Your task to perform on an android device: Open my contact list Image 0: 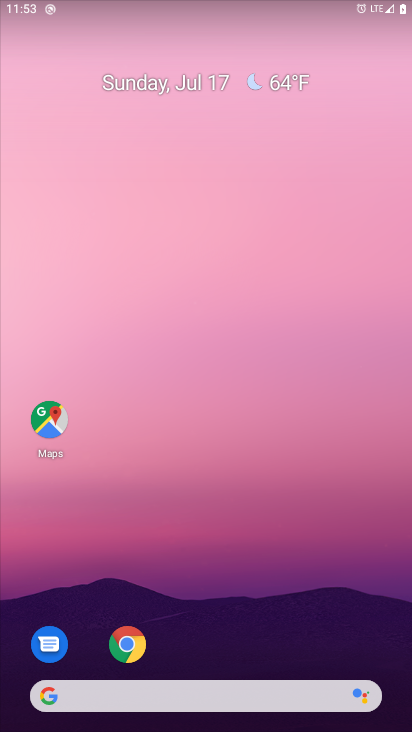
Step 0: press home button
Your task to perform on an android device: Open my contact list Image 1: 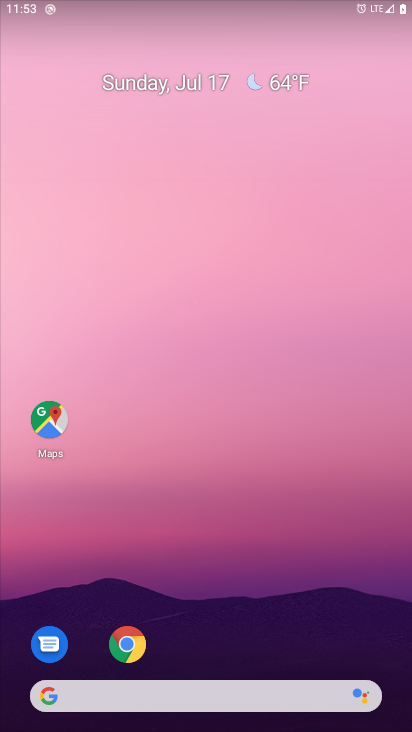
Step 1: drag from (326, 617) to (357, 144)
Your task to perform on an android device: Open my contact list Image 2: 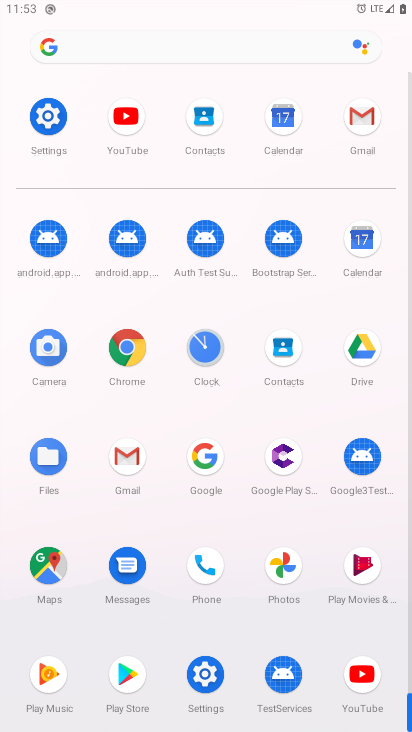
Step 2: click (284, 350)
Your task to perform on an android device: Open my contact list Image 3: 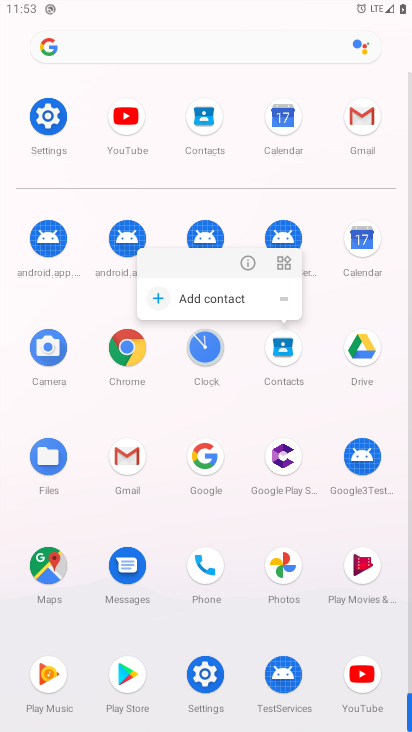
Step 3: click (287, 361)
Your task to perform on an android device: Open my contact list Image 4: 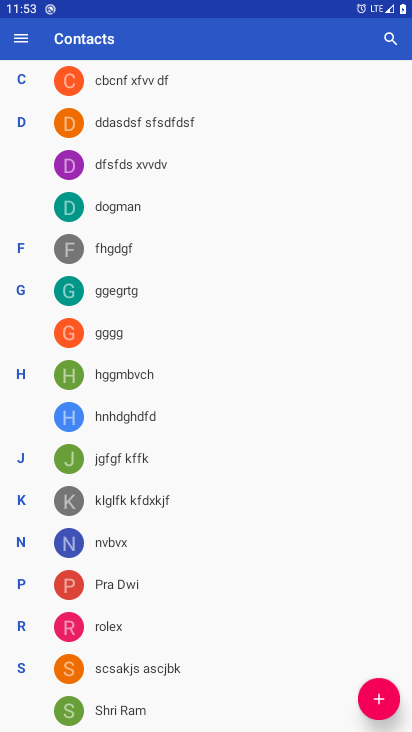
Step 4: task complete